Your task to perform on an android device: turn notification dots on Image 0: 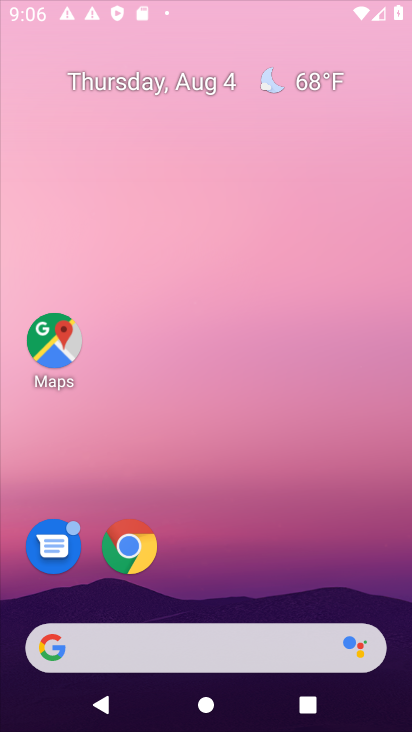
Step 0: press home button
Your task to perform on an android device: turn notification dots on Image 1: 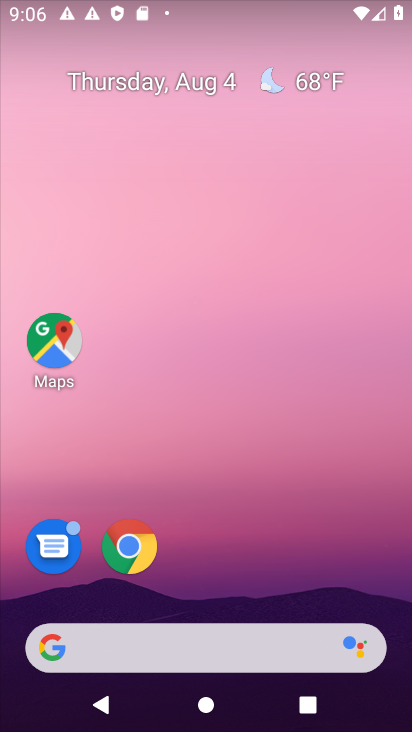
Step 1: drag from (217, 607) to (219, 126)
Your task to perform on an android device: turn notification dots on Image 2: 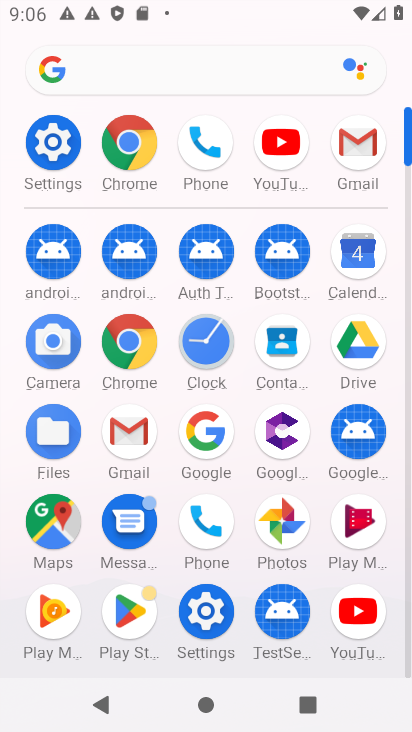
Step 2: click (57, 144)
Your task to perform on an android device: turn notification dots on Image 3: 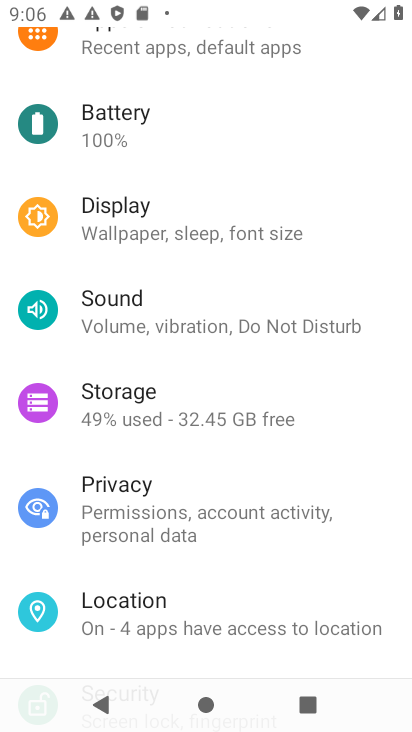
Step 3: drag from (287, 138) to (342, 517)
Your task to perform on an android device: turn notification dots on Image 4: 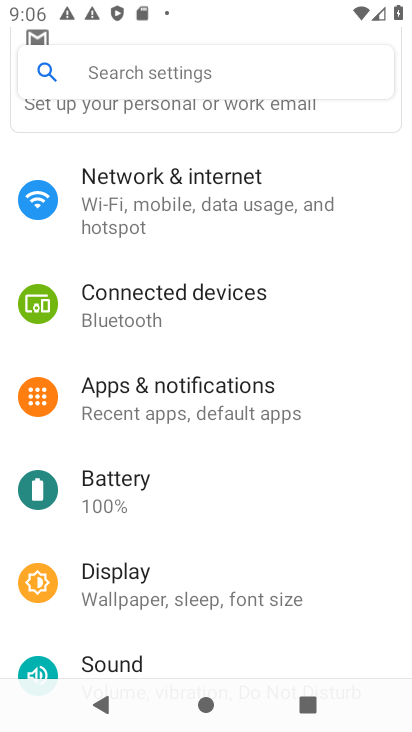
Step 4: click (180, 396)
Your task to perform on an android device: turn notification dots on Image 5: 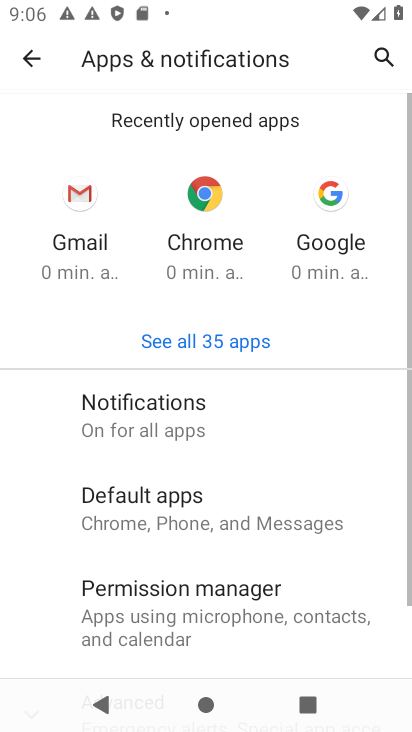
Step 5: click (153, 414)
Your task to perform on an android device: turn notification dots on Image 6: 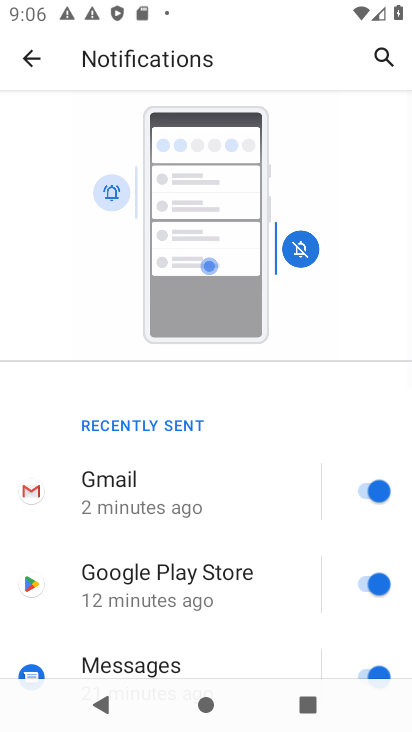
Step 6: drag from (318, 572) to (319, 128)
Your task to perform on an android device: turn notification dots on Image 7: 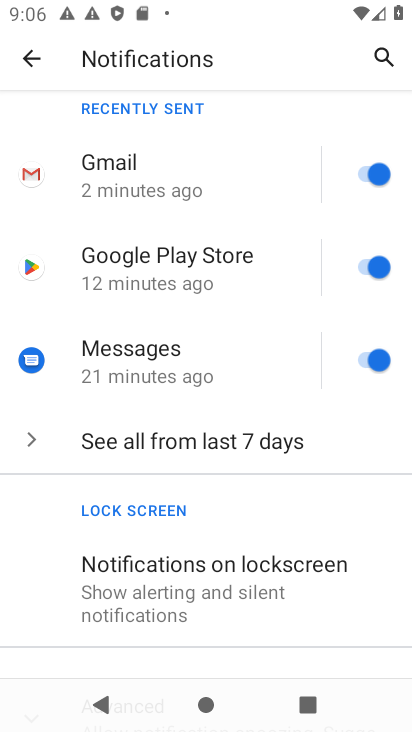
Step 7: drag from (322, 573) to (278, 248)
Your task to perform on an android device: turn notification dots on Image 8: 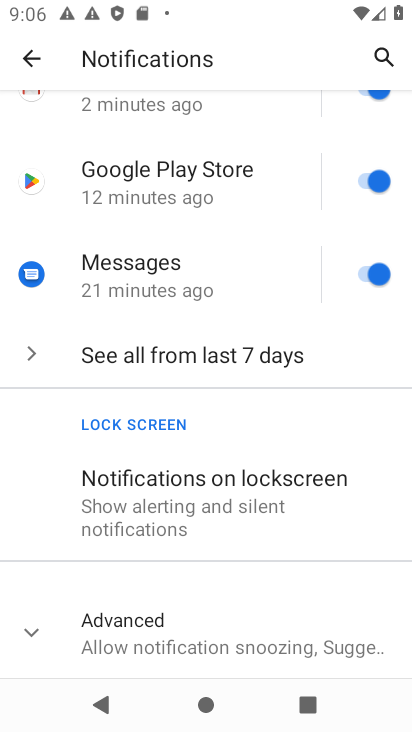
Step 8: click (101, 638)
Your task to perform on an android device: turn notification dots on Image 9: 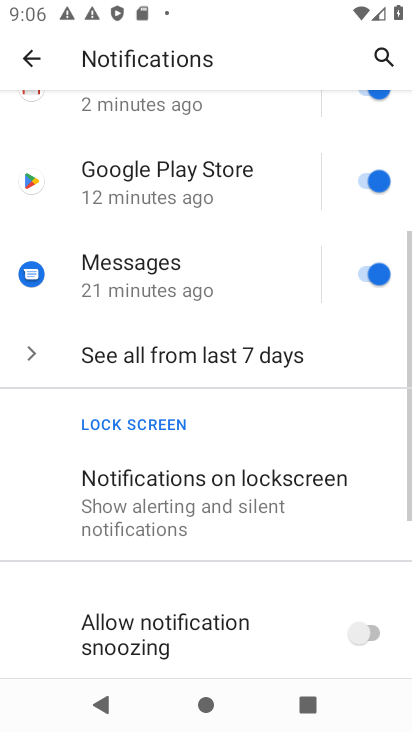
Step 9: task complete